Your task to perform on an android device: Open the web browser Image 0: 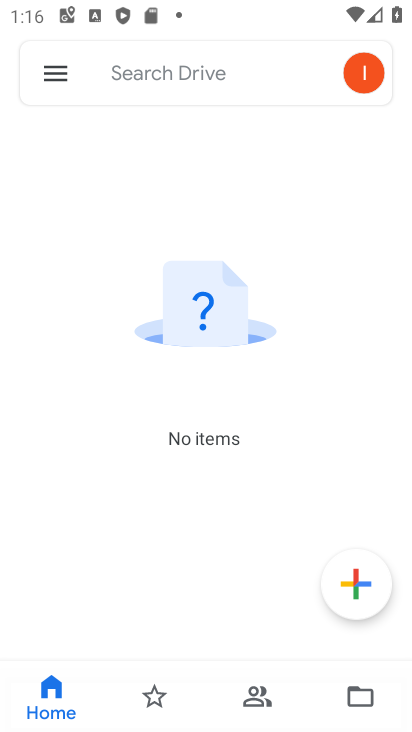
Step 0: press home button
Your task to perform on an android device: Open the web browser Image 1: 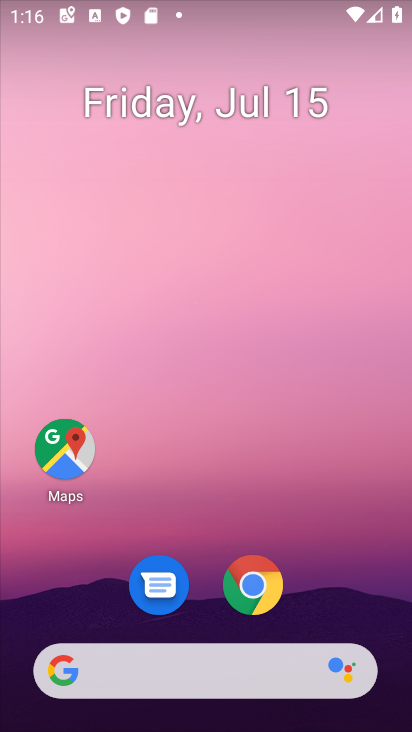
Step 1: click (269, 675)
Your task to perform on an android device: Open the web browser Image 2: 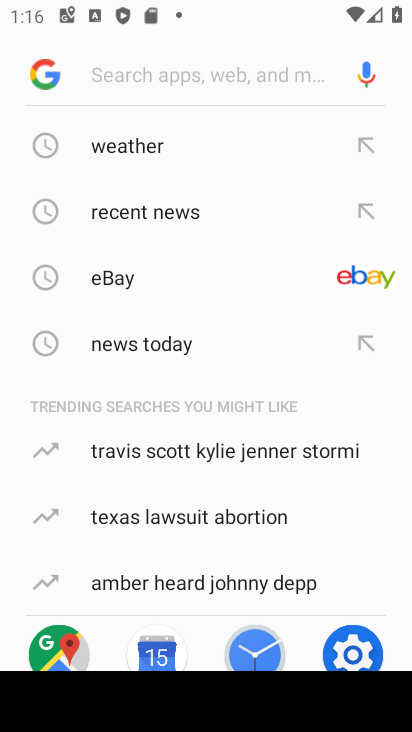
Step 2: task complete